Your task to perform on an android device: snooze an email in the gmail app Image 0: 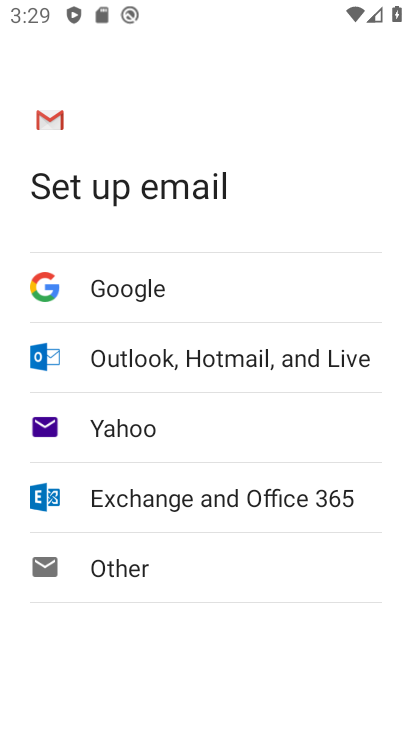
Step 0: press back button
Your task to perform on an android device: snooze an email in the gmail app Image 1: 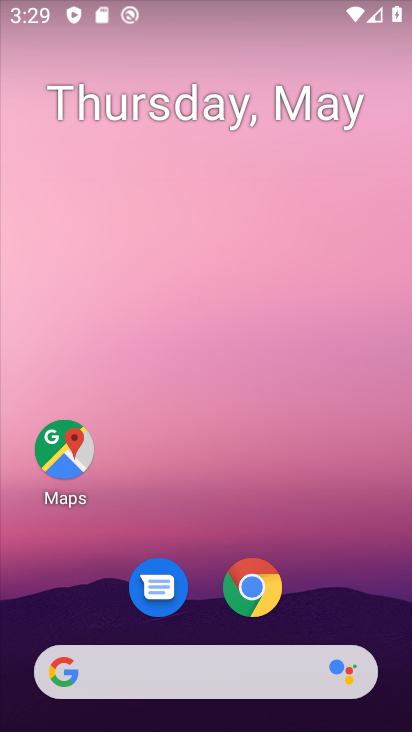
Step 1: drag from (322, 566) to (244, 18)
Your task to perform on an android device: snooze an email in the gmail app Image 2: 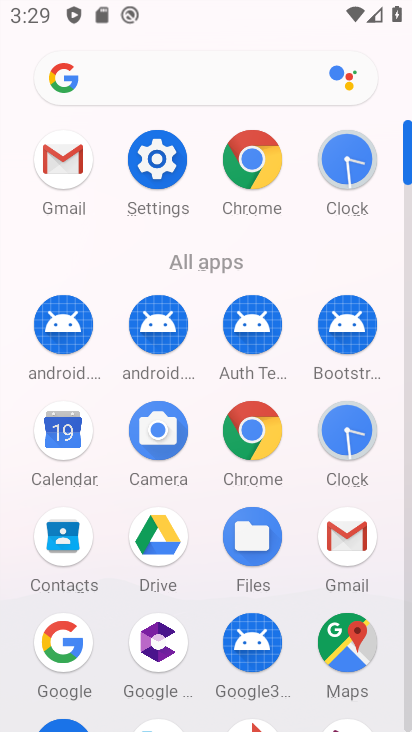
Step 2: drag from (11, 547) to (13, 256)
Your task to perform on an android device: snooze an email in the gmail app Image 3: 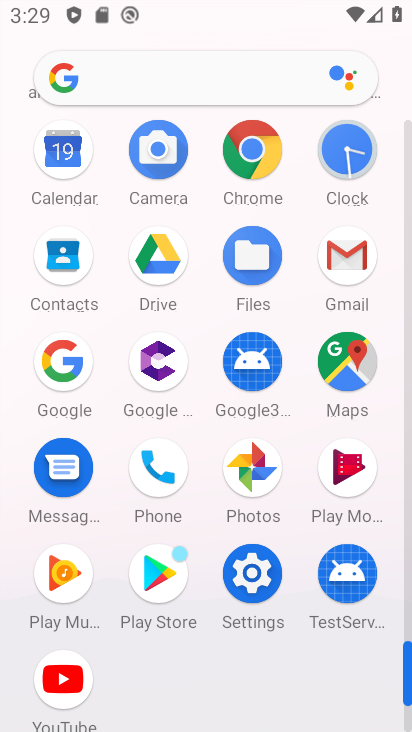
Step 3: click (345, 252)
Your task to perform on an android device: snooze an email in the gmail app Image 4: 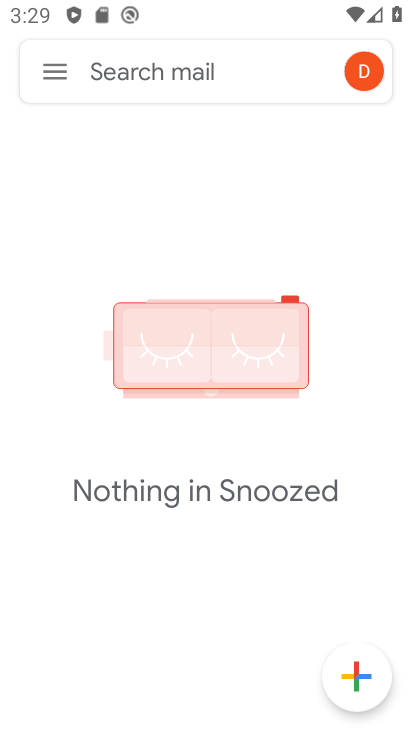
Step 4: click (46, 69)
Your task to perform on an android device: snooze an email in the gmail app Image 5: 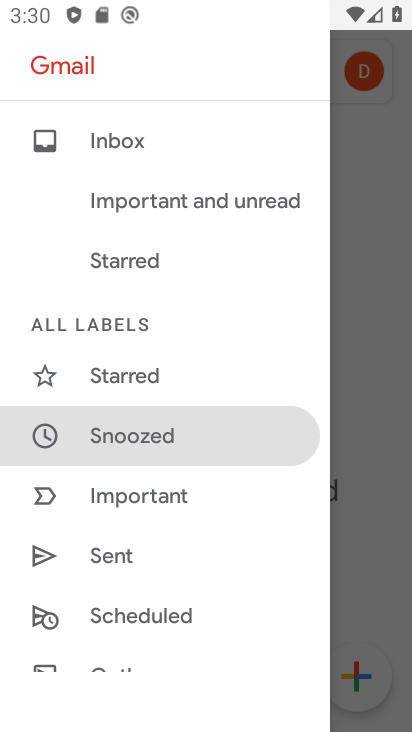
Step 5: click (151, 432)
Your task to perform on an android device: snooze an email in the gmail app Image 6: 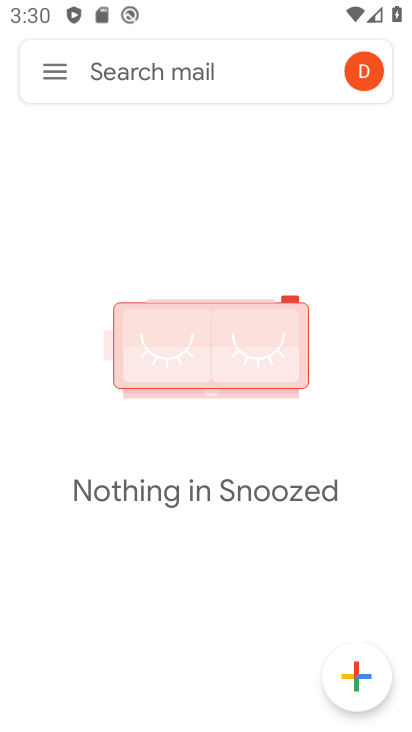
Step 6: click (48, 79)
Your task to perform on an android device: snooze an email in the gmail app Image 7: 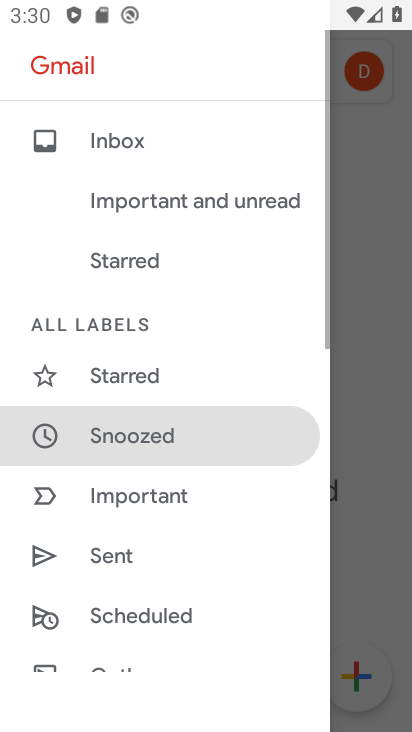
Step 7: click (116, 155)
Your task to perform on an android device: snooze an email in the gmail app Image 8: 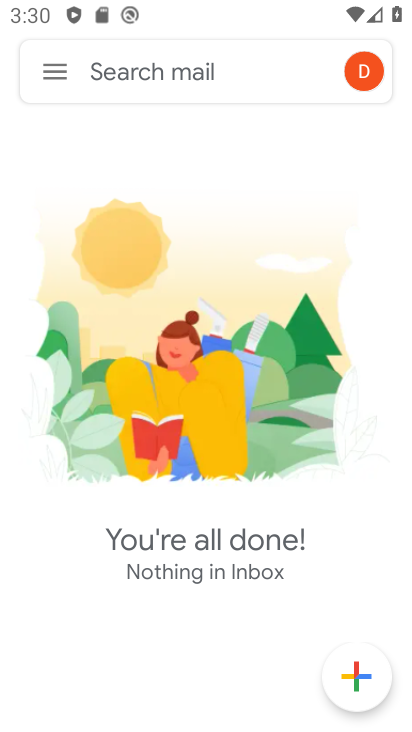
Step 8: click (49, 70)
Your task to perform on an android device: snooze an email in the gmail app Image 9: 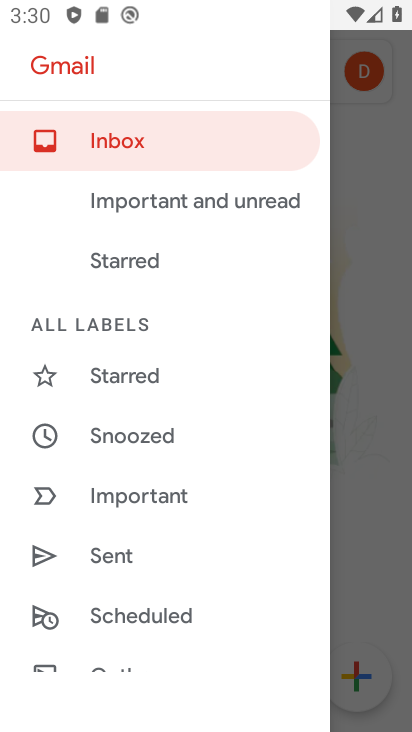
Step 9: drag from (199, 618) to (191, 148)
Your task to perform on an android device: snooze an email in the gmail app Image 10: 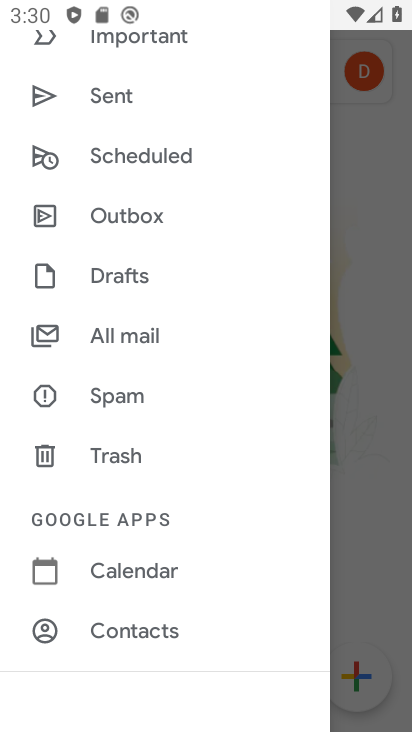
Step 10: click (161, 324)
Your task to perform on an android device: snooze an email in the gmail app Image 11: 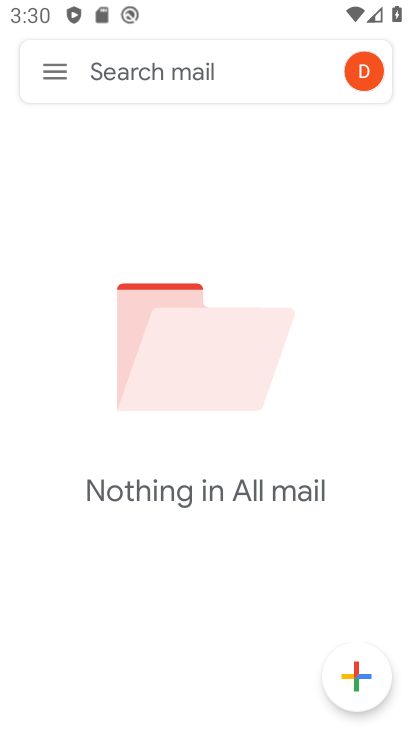
Step 11: task complete